Your task to perform on an android device: Show me popular videos on Youtube Image 0: 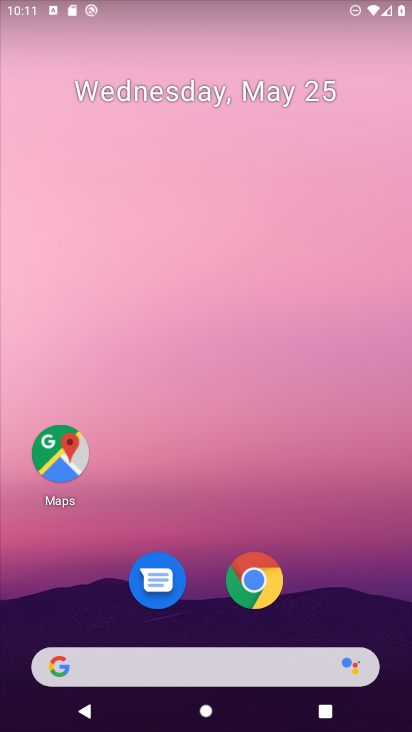
Step 0: press home button
Your task to perform on an android device: Show me popular videos on Youtube Image 1: 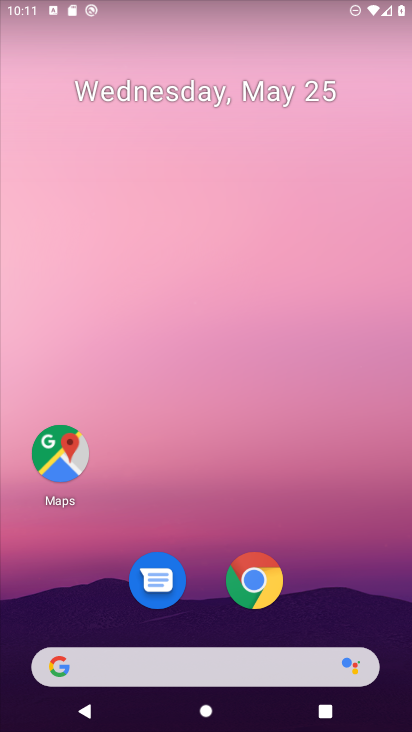
Step 1: drag from (46, 564) to (228, 129)
Your task to perform on an android device: Show me popular videos on Youtube Image 2: 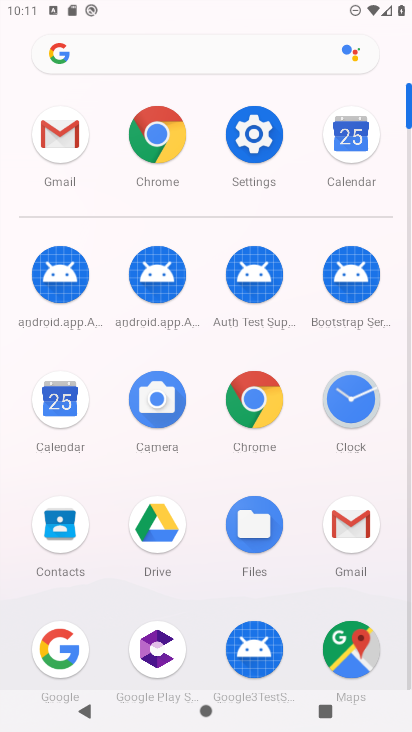
Step 2: drag from (26, 543) to (304, 110)
Your task to perform on an android device: Show me popular videos on Youtube Image 3: 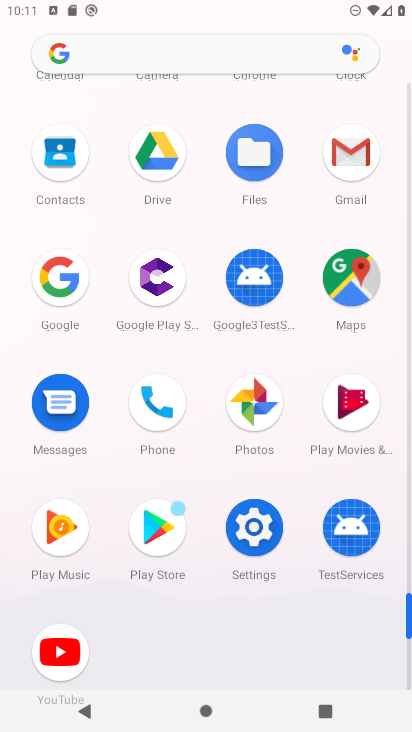
Step 3: click (52, 669)
Your task to perform on an android device: Show me popular videos on Youtube Image 4: 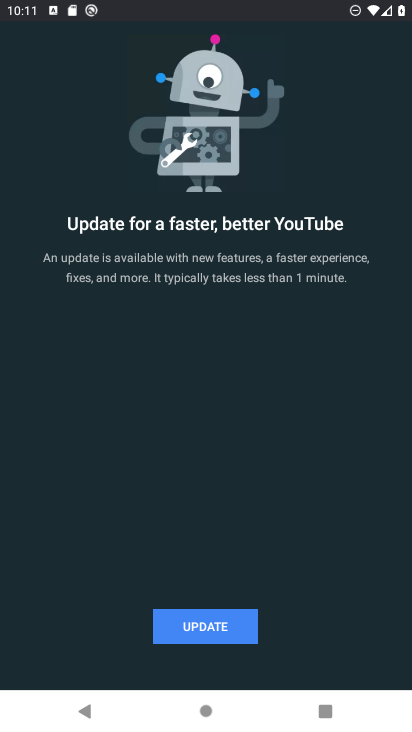
Step 4: task complete